Your task to perform on an android device: turn notification dots off Image 0: 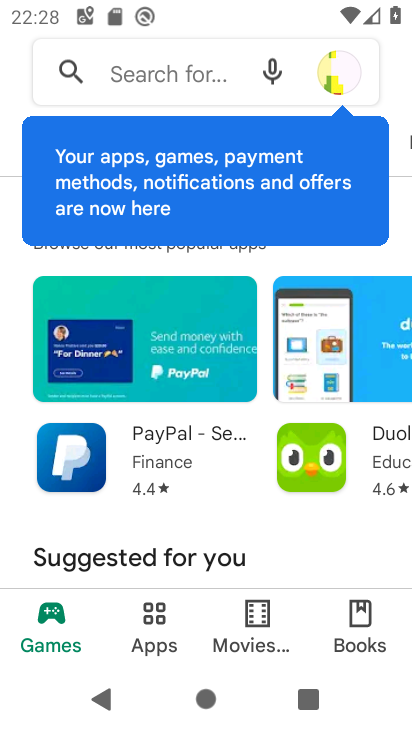
Step 0: press home button
Your task to perform on an android device: turn notification dots off Image 1: 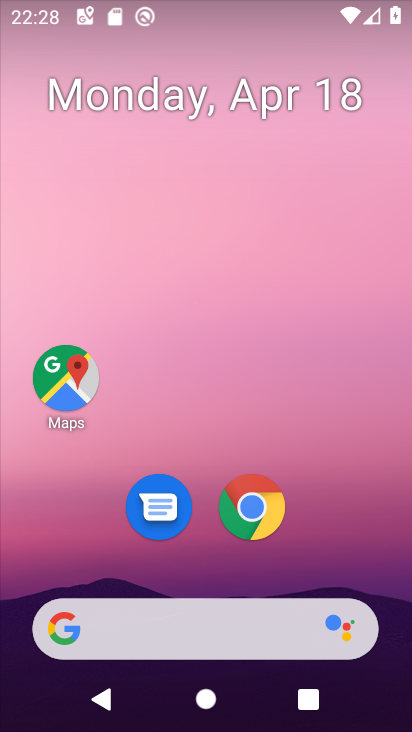
Step 1: drag from (353, 512) to (295, 120)
Your task to perform on an android device: turn notification dots off Image 2: 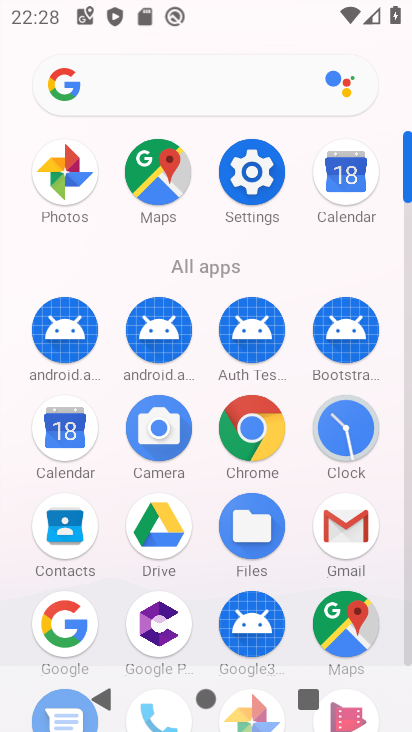
Step 2: click (255, 173)
Your task to perform on an android device: turn notification dots off Image 3: 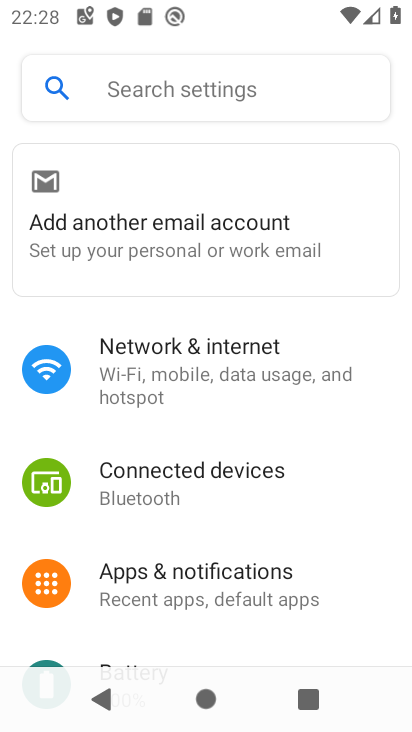
Step 3: click (200, 578)
Your task to perform on an android device: turn notification dots off Image 4: 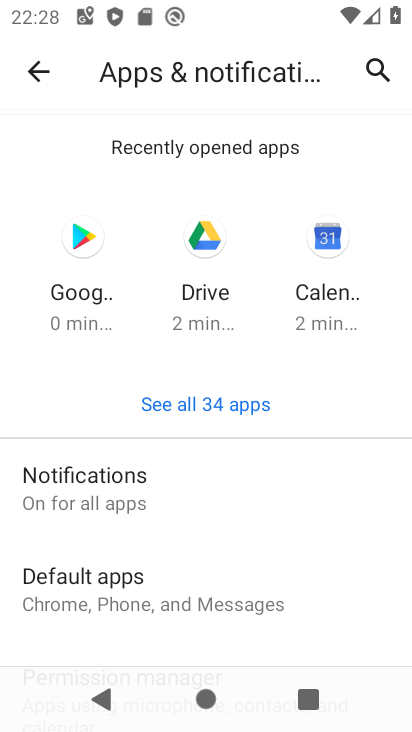
Step 4: drag from (234, 512) to (242, 223)
Your task to perform on an android device: turn notification dots off Image 5: 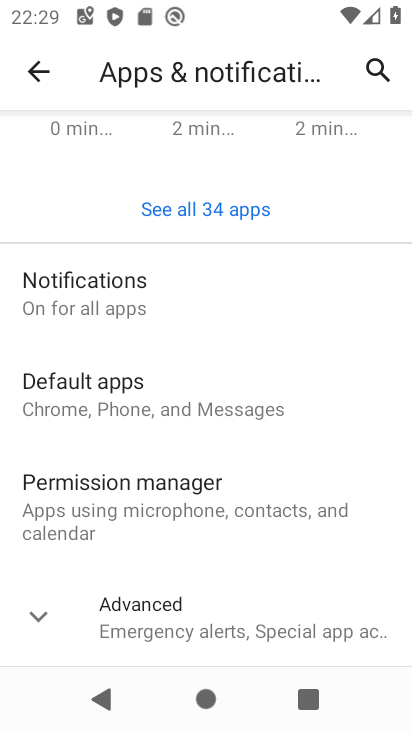
Step 5: click (184, 315)
Your task to perform on an android device: turn notification dots off Image 6: 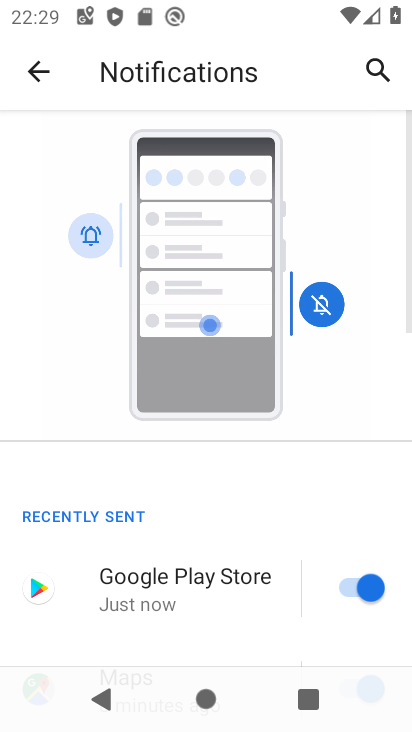
Step 6: drag from (163, 546) to (204, 162)
Your task to perform on an android device: turn notification dots off Image 7: 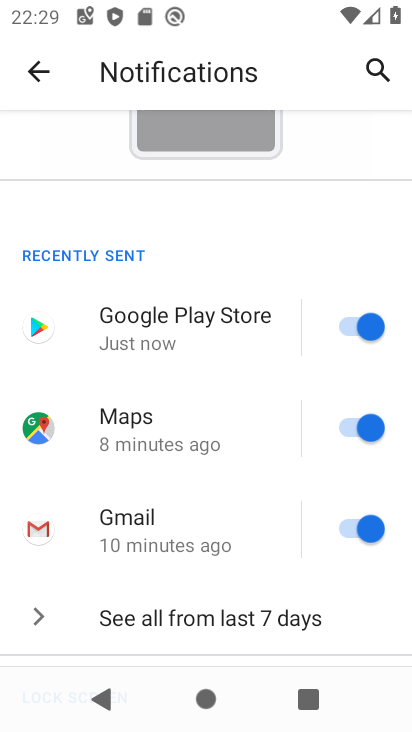
Step 7: drag from (150, 490) to (206, 229)
Your task to perform on an android device: turn notification dots off Image 8: 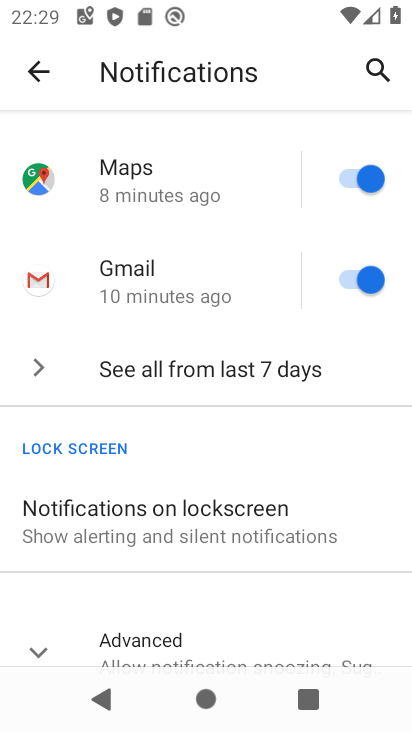
Step 8: click (41, 651)
Your task to perform on an android device: turn notification dots off Image 9: 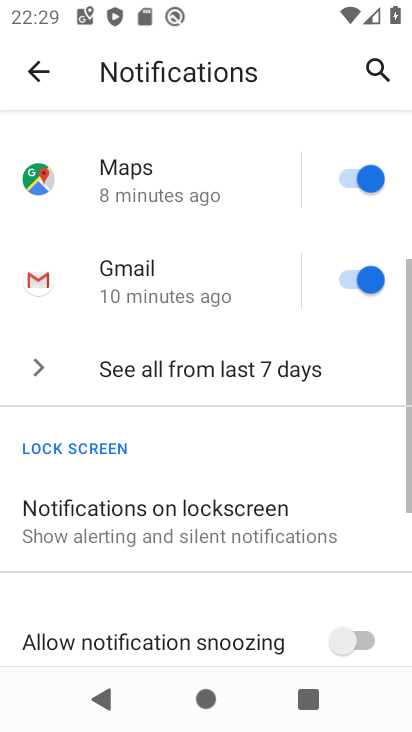
Step 9: drag from (195, 506) to (262, 218)
Your task to perform on an android device: turn notification dots off Image 10: 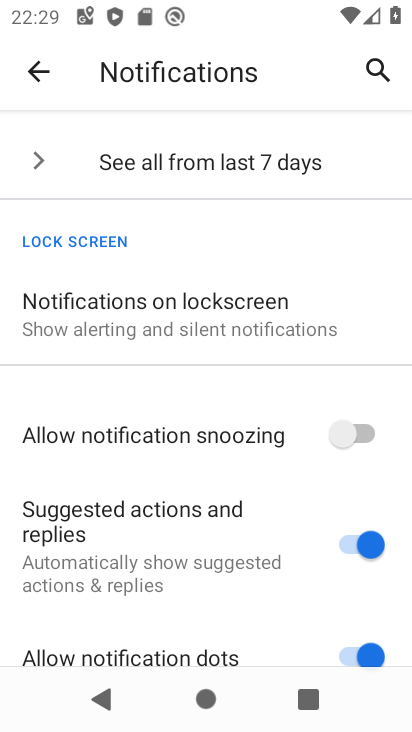
Step 10: drag from (230, 588) to (256, 395)
Your task to perform on an android device: turn notification dots off Image 11: 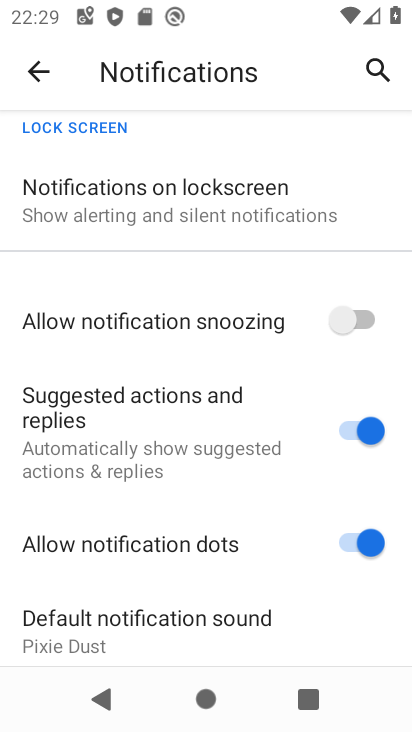
Step 11: click (355, 549)
Your task to perform on an android device: turn notification dots off Image 12: 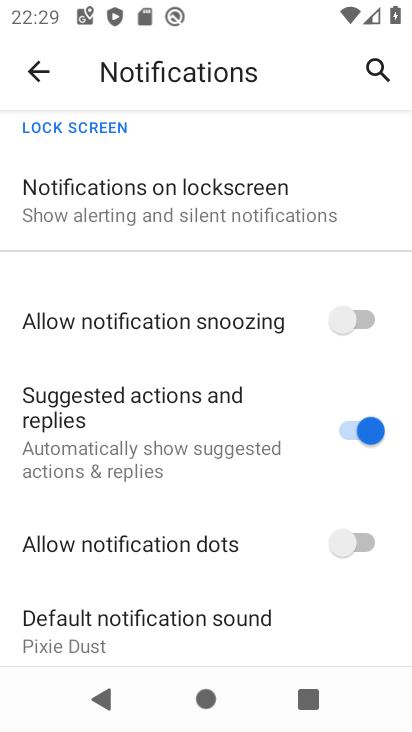
Step 12: task complete